Your task to perform on an android device: open a bookmark in the chrome app Image 0: 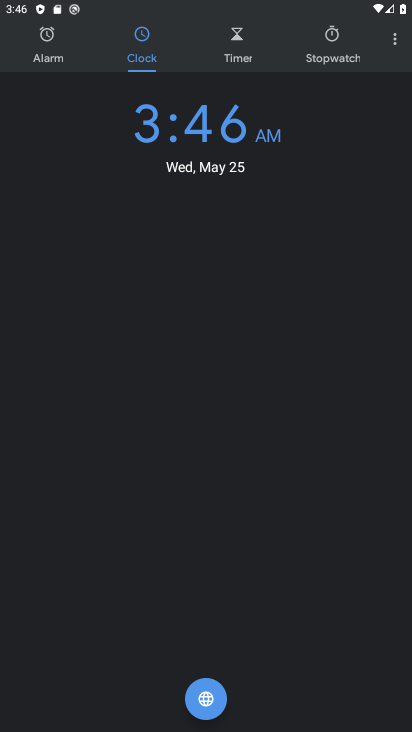
Step 0: press back button
Your task to perform on an android device: open a bookmark in the chrome app Image 1: 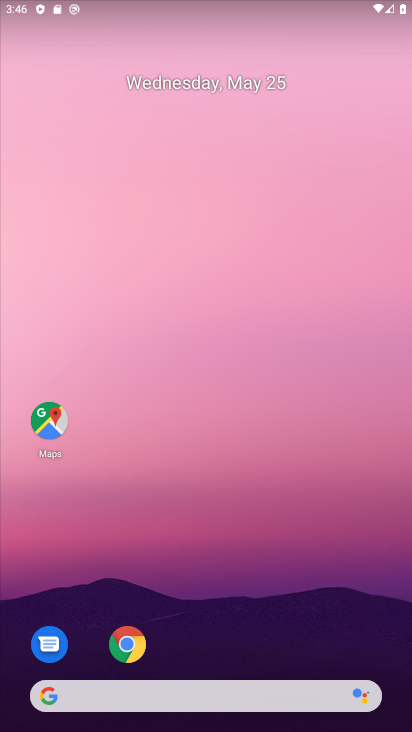
Step 1: click (126, 644)
Your task to perform on an android device: open a bookmark in the chrome app Image 2: 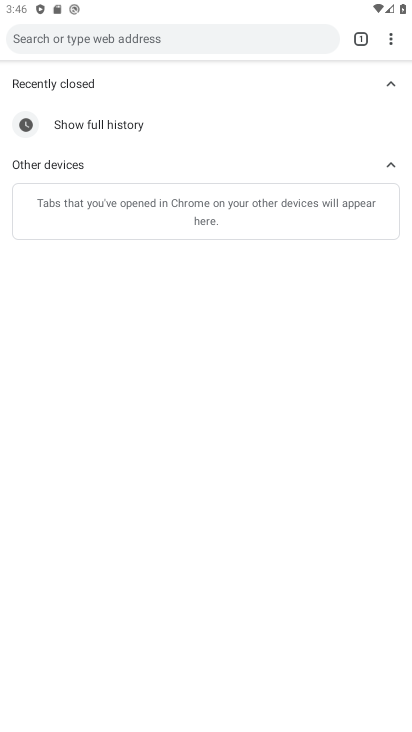
Step 2: click (392, 40)
Your task to perform on an android device: open a bookmark in the chrome app Image 3: 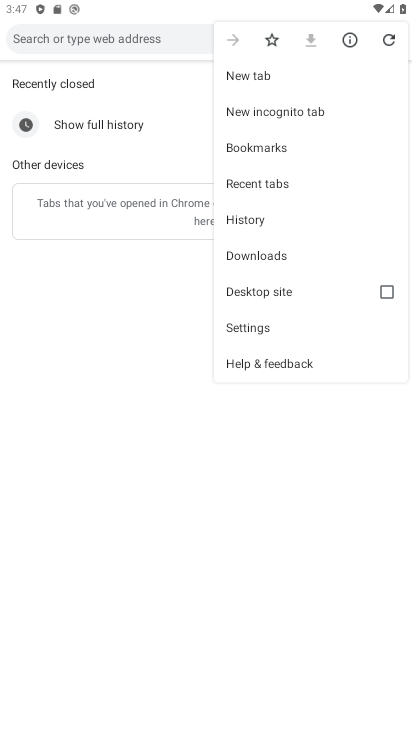
Step 3: click (272, 149)
Your task to perform on an android device: open a bookmark in the chrome app Image 4: 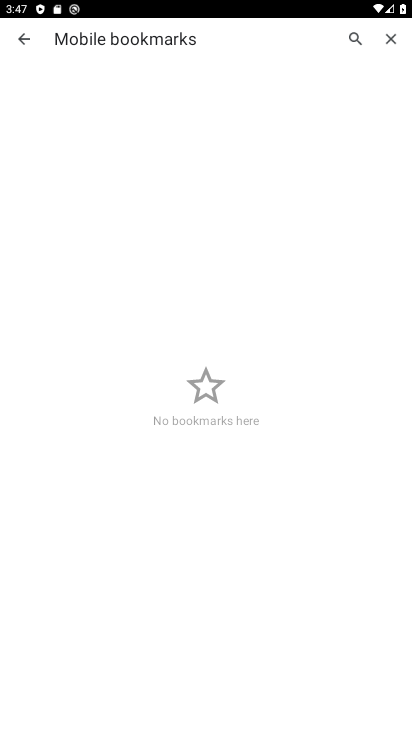
Step 4: task complete